Your task to perform on an android device: visit the assistant section in the google photos Image 0: 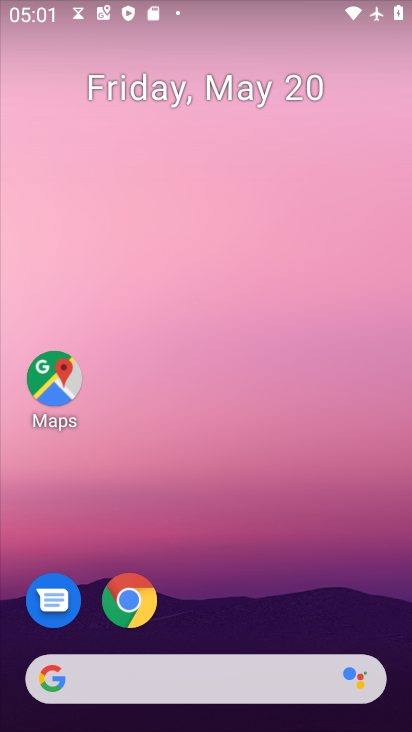
Step 0: drag from (231, 527) to (6, 487)
Your task to perform on an android device: visit the assistant section in the google photos Image 1: 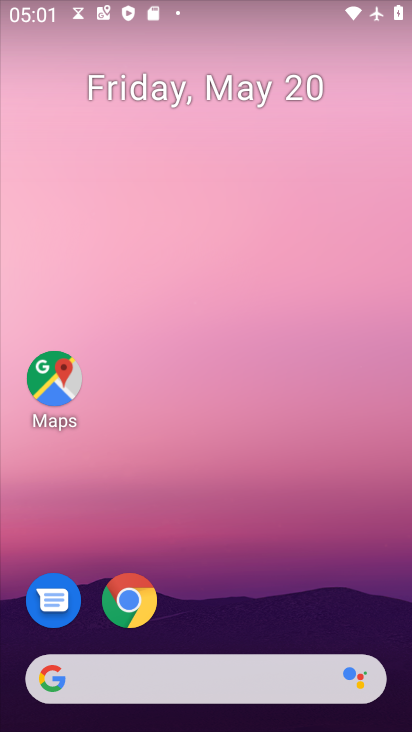
Step 1: drag from (8, 514) to (25, 0)
Your task to perform on an android device: visit the assistant section in the google photos Image 2: 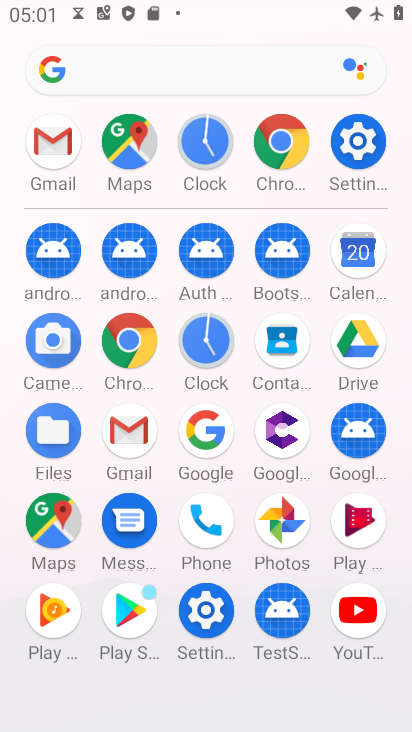
Step 2: drag from (23, 529) to (25, 310)
Your task to perform on an android device: visit the assistant section in the google photos Image 3: 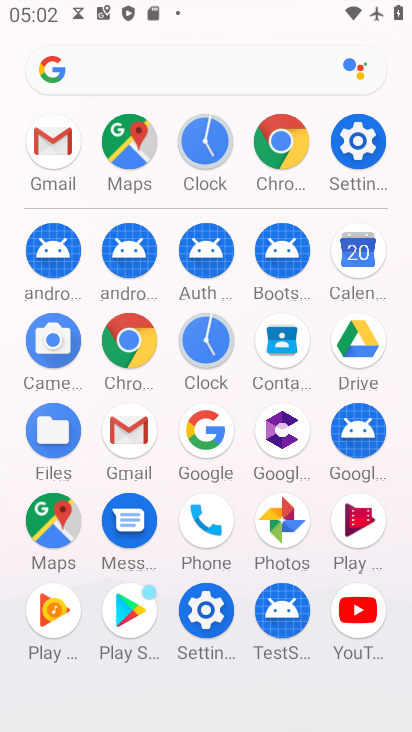
Step 3: click (286, 518)
Your task to perform on an android device: visit the assistant section in the google photos Image 4: 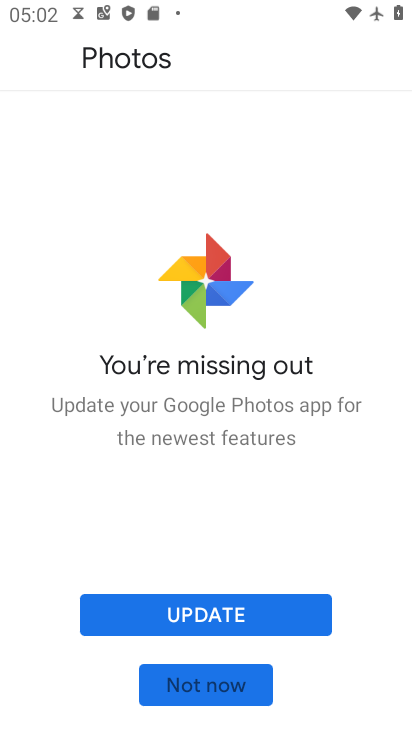
Step 4: click (177, 696)
Your task to perform on an android device: visit the assistant section in the google photos Image 5: 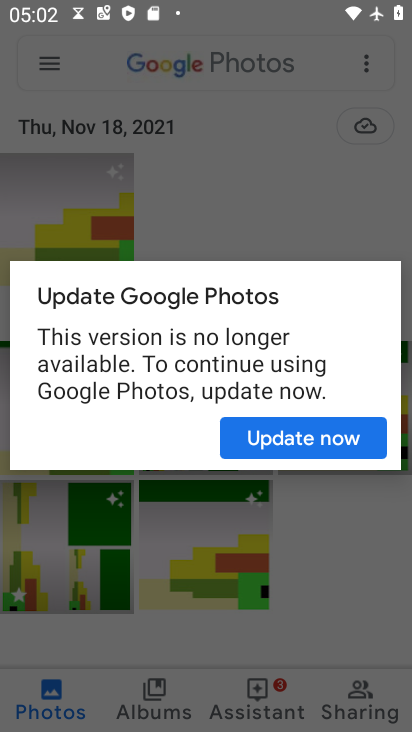
Step 5: click (291, 439)
Your task to perform on an android device: visit the assistant section in the google photos Image 6: 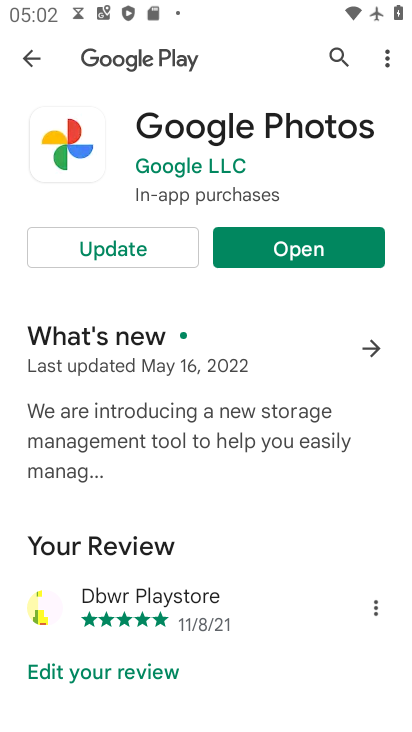
Step 6: click (284, 248)
Your task to perform on an android device: visit the assistant section in the google photos Image 7: 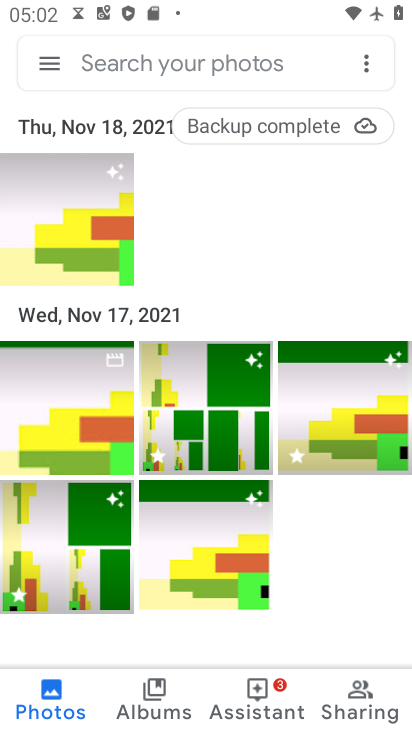
Step 7: click (249, 704)
Your task to perform on an android device: visit the assistant section in the google photos Image 8: 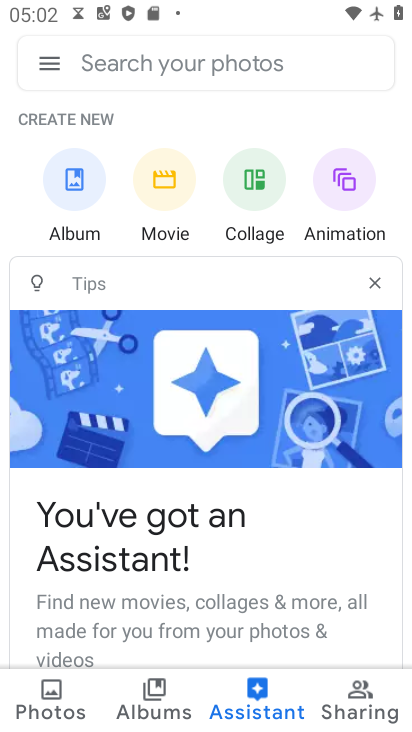
Step 8: task complete